Your task to perform on an android device: Set the phone to "Do not disturb". Image 0: 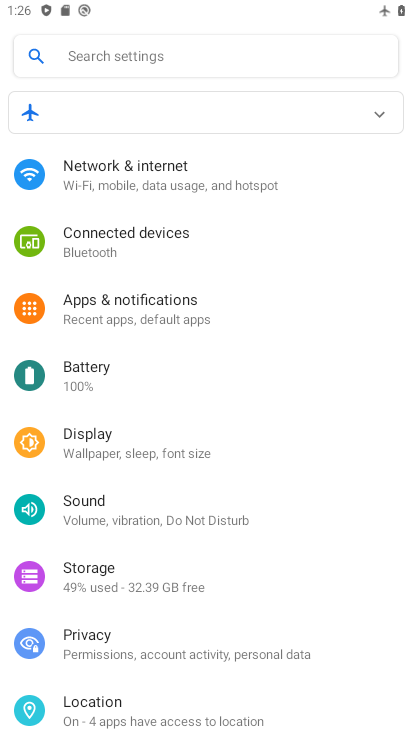
Step 0: click (142, 522)
Your task to perform on an android device: Set the phone to "Do not disturb". Image 1: 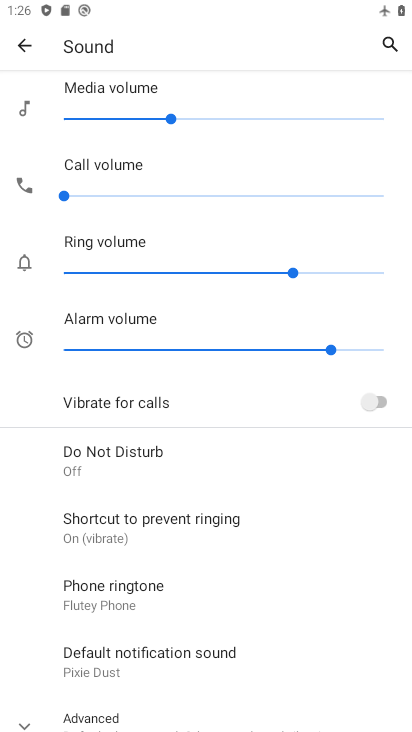
Step 1: click (146, 473)
Your task to perform on an android device: Set the phone to "Do not disturb". Image 2: 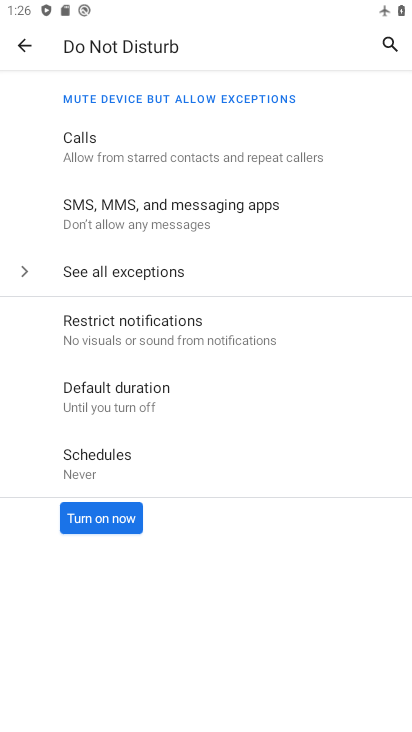
Step 2: click (105, 512)
Your task to perform on an android device: Set the phone to "Do not disturb". Image 3: 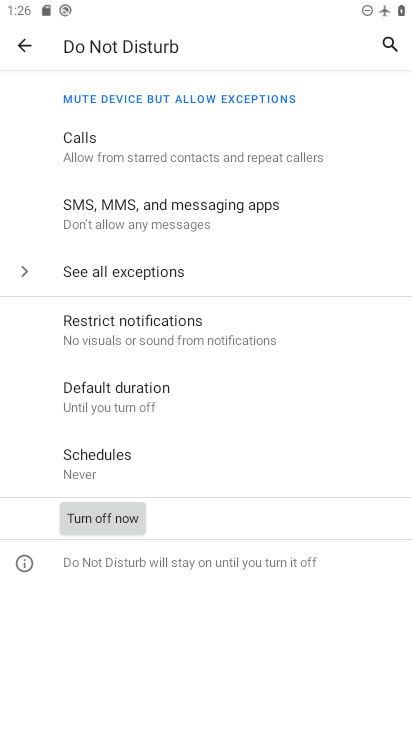
Step 3: task complete